Your task to perform on an android device: open chrome and create a bookmark for the current page Image 0: 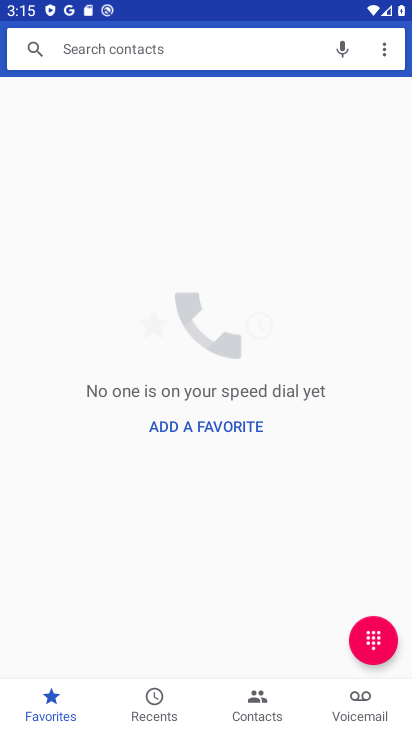
Step 0: press home button
Your task to perform on an android device: open chrome and create a bookmark for the current page Image 1: 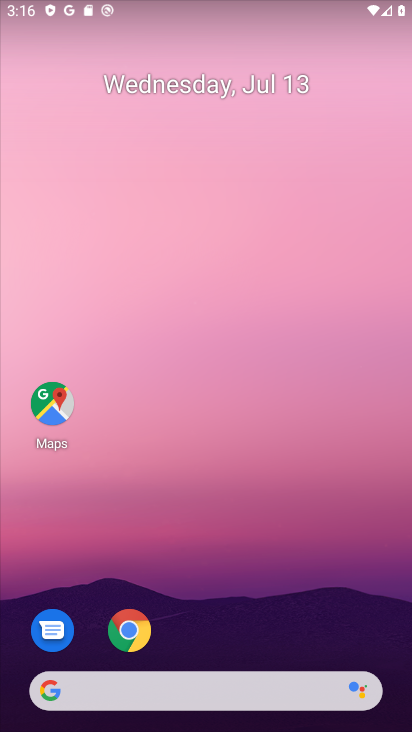
Step 1: click (124, 625)
Your task to perform on an android device: open chrome and create a bookmark for the current page Image 2: 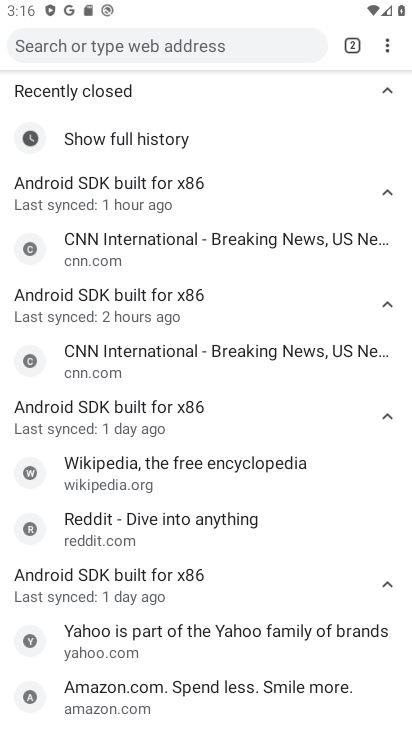
Step 2: press back button
Your task to perform on an android device: open chrome and create a bookmark for the current page Image 3: 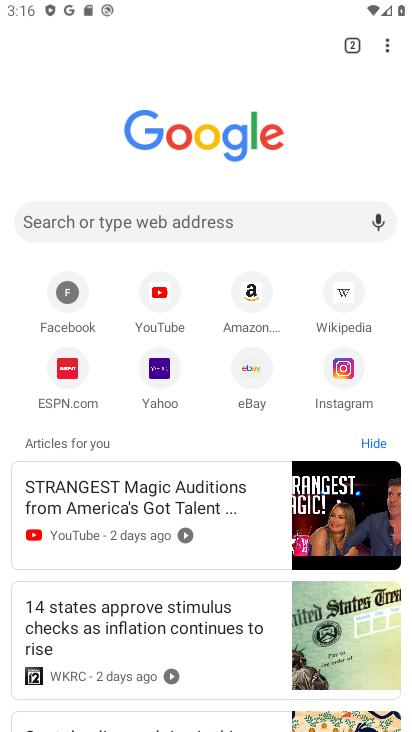
Step 3: click (383, 47)
Your task to perform on an android device: open chrome and create a bookmark for the current page Image 4: 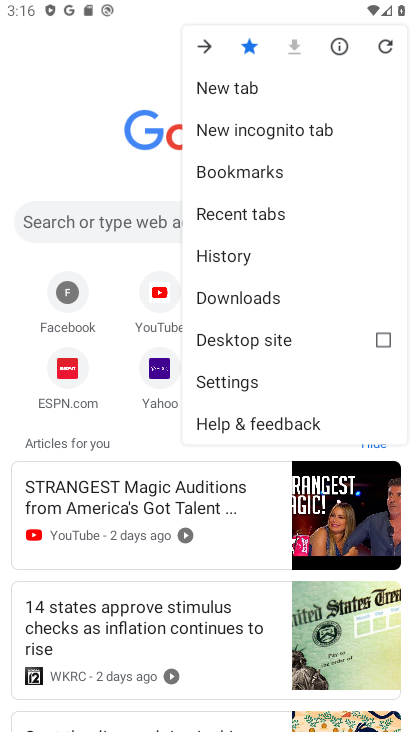
Step 4: task complete